Your task to perform on an android device: move an email to a new category in the gmail app Image 0: 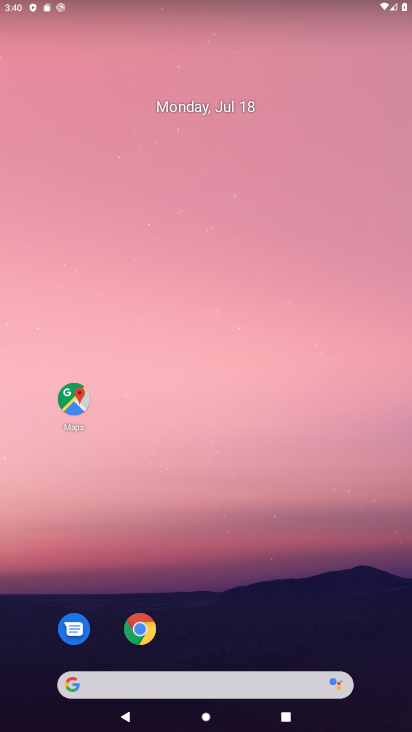
Step 0: drag from (198, 658) to (259, 136)
Your task to perform on an android device: move an email to a new category in the gmail app Image 1: 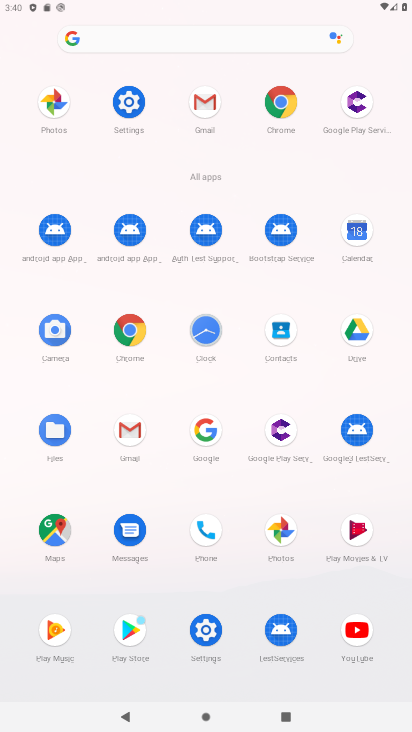
Step 1: click (128, 433)
Your task to perform on an android device: move an email to a new category in the gmail app Image 2: 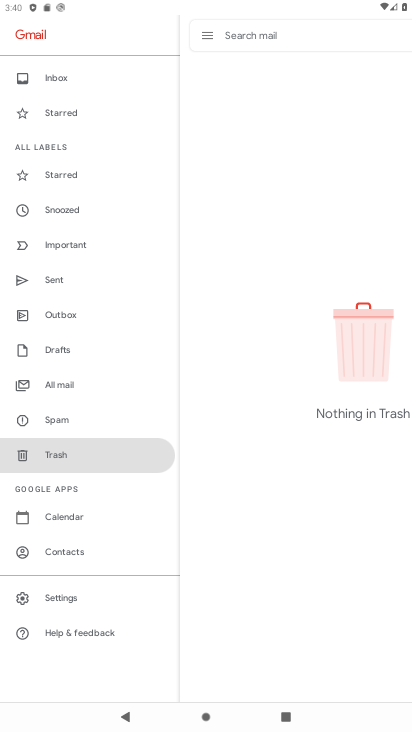
Step 2: click (88, 384)
Your task to perform on an android device: move an email to a new category in the gmail app Image 3: 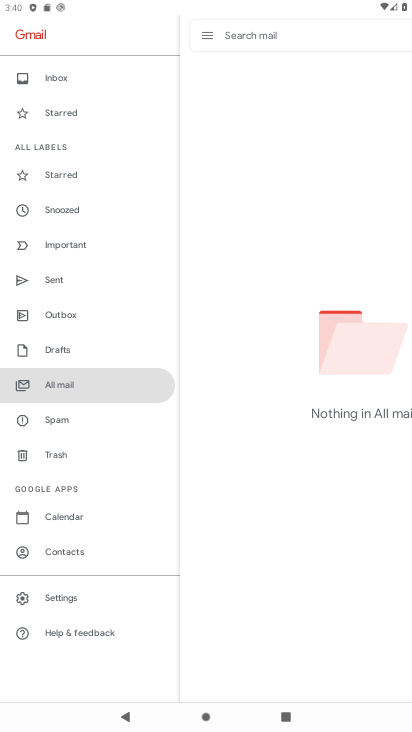
Step 3: task complete